Your task to perform on an android device: toggle show notifications on the lock screen Image 0: 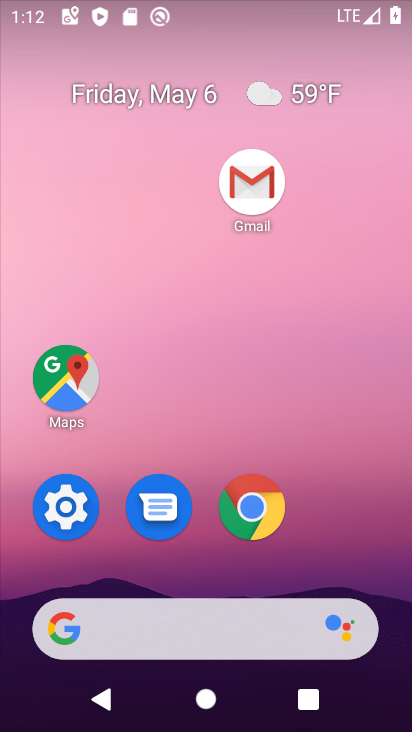
Step 0: click (61, 505)
Your task to perform on an android device: toggle show notifications on the lock screen Image 1: 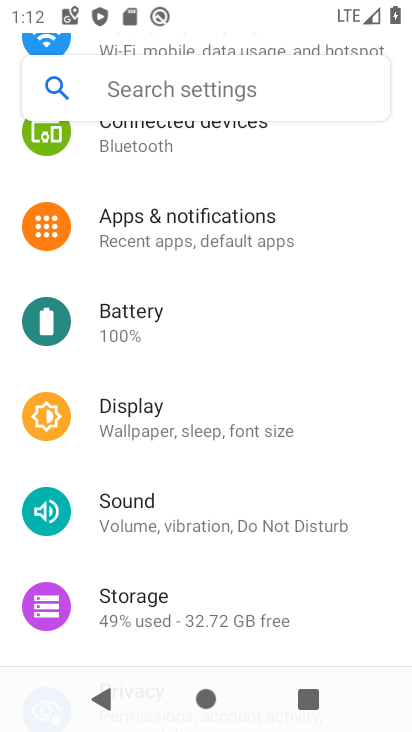
Step 1: click (171, 205)
Your task to perform on an android device: toggle show notifications on the lock screen Image 2: 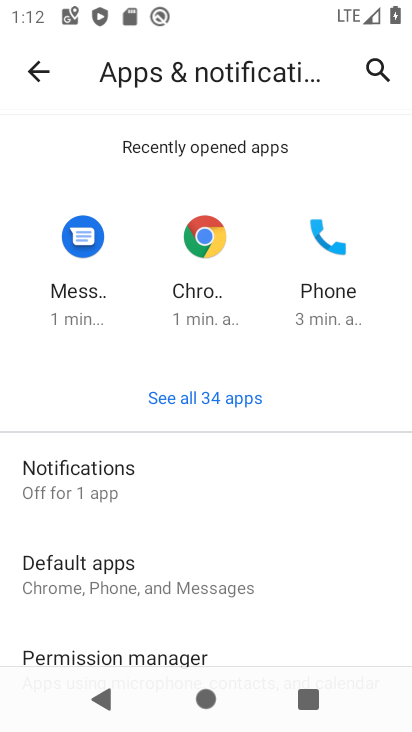
Step 2: click (93, 471)
Your task to perform on an android device: toggle show notifications on the lock screen Image 3: 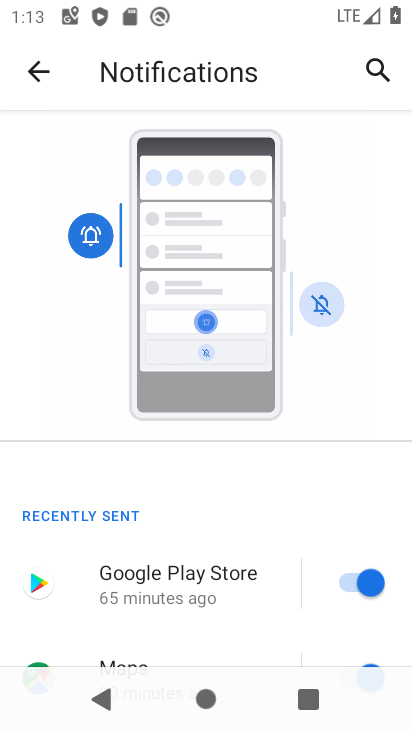
Step 3: drag from (278, 485) to (238, 230)
Your task to perform on an android device: toggle show notifications on the lock screen Image 4: 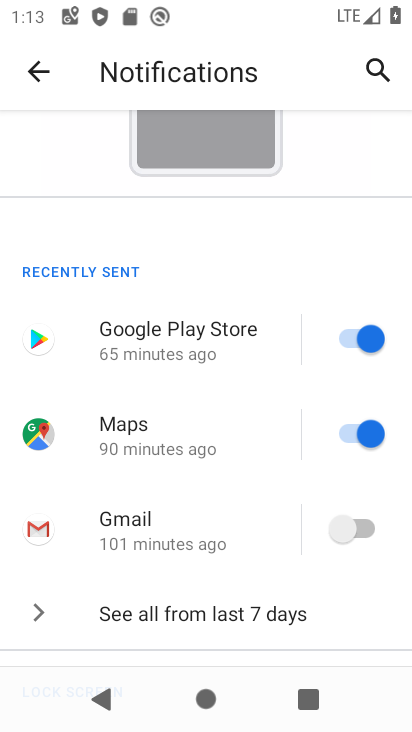
Step 4: drag from (225, 517) to (232, 254)
Your task to perform on an android device: toggle show notifications on the lock screen Image 5: 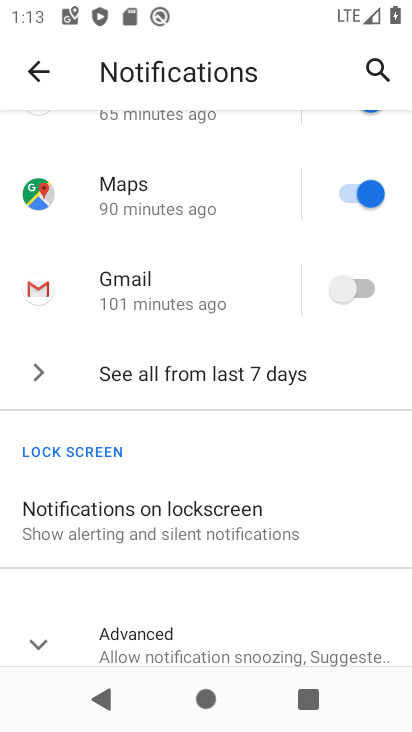
Step 5: click (156, 509)
Your task to perform on an android device: toggle show notifications on the lock screen Image 6: 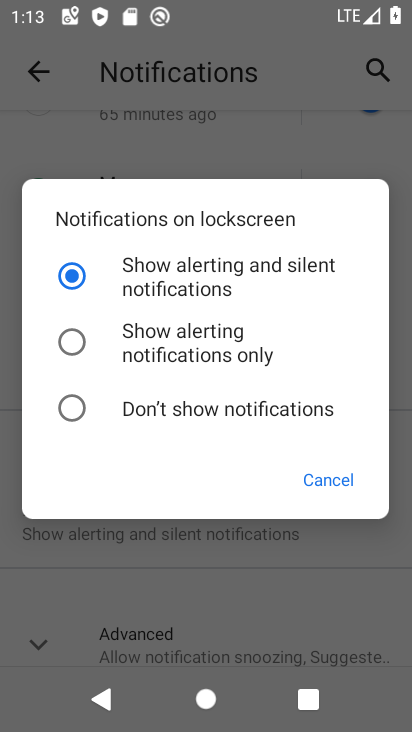
Step 6: click (73, 405)
Your task to perform on an android device: toggle show notifications on the lock screen Image 7: 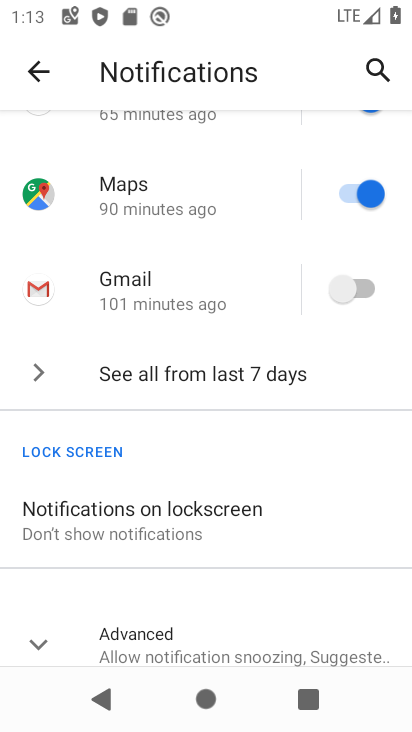
Step 7: task complete